Your task to perform on an android device: Open Reddit.com Image 0: 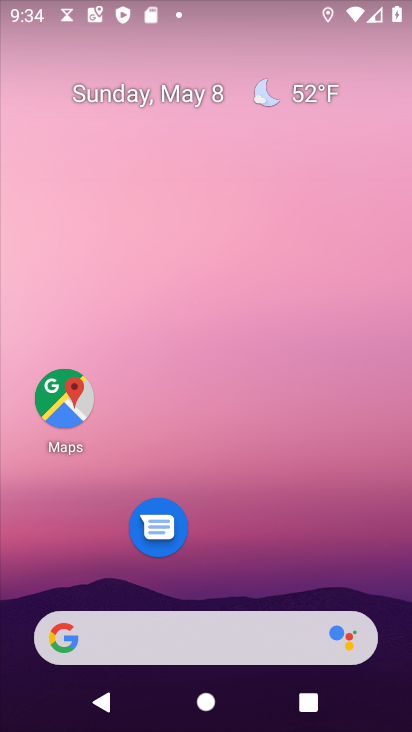
Step 0: drag from (252, 531) to (231, 138)
Your task to perform on an android device: Open Reddit.com Image 1: 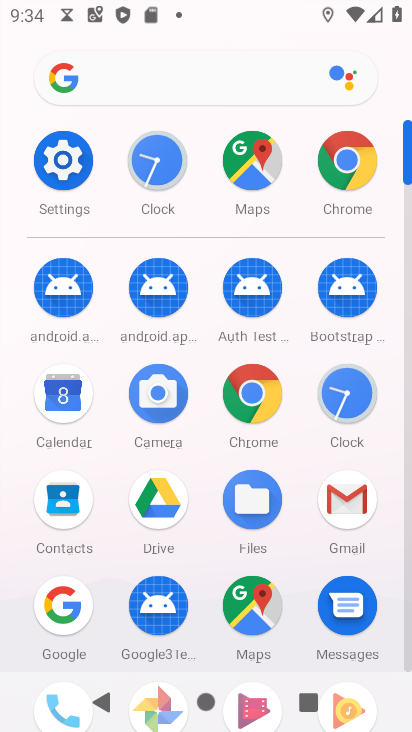
Step 1: click (349, 163)
Your task to perform on an android device: Open Reddit.com Image 2: 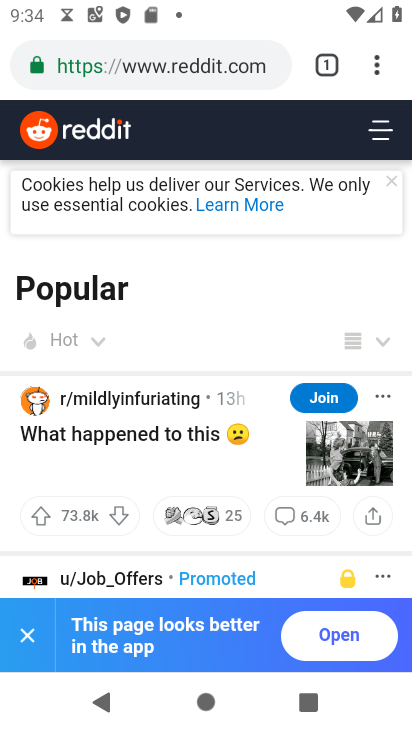
Step 2: task complete